Your task to perform on an android device: turn off javascript in the chrome app Image 0: 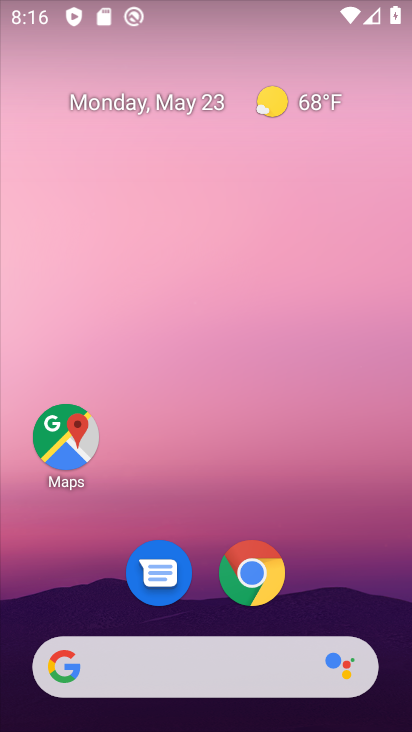
Step 0: click (253, 566)
Your task to perform on an android device: turn off javascript in the chrome app Image 1: 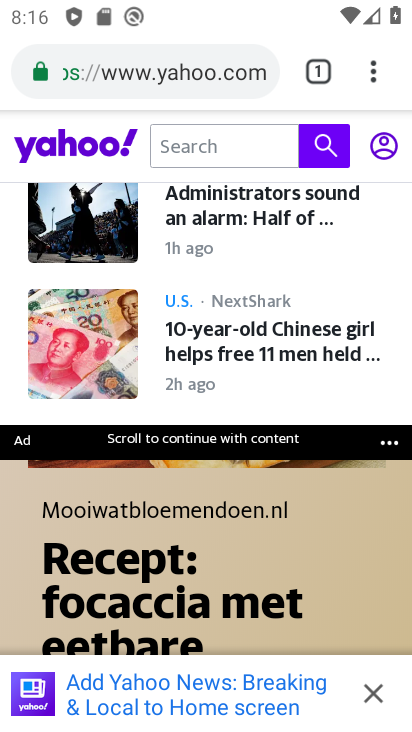
Step 1: click (373, 72)
Your task to perform on an android device: turn off javascript in the chrome app Image 2: 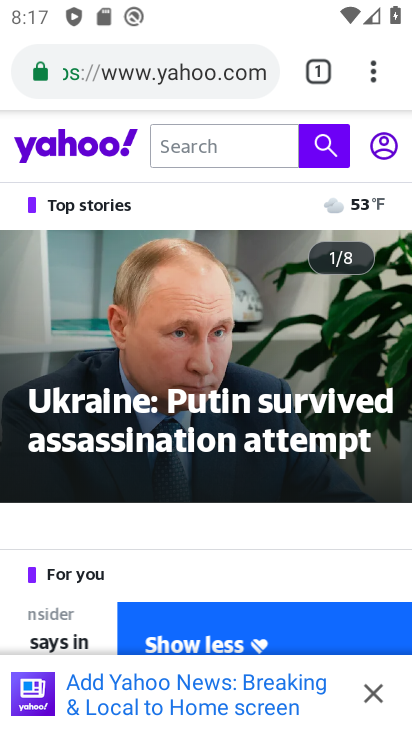
Step 2: click (370, 69)
Your task to perform on an android device: turn off javascript in the chrome app Image 3: 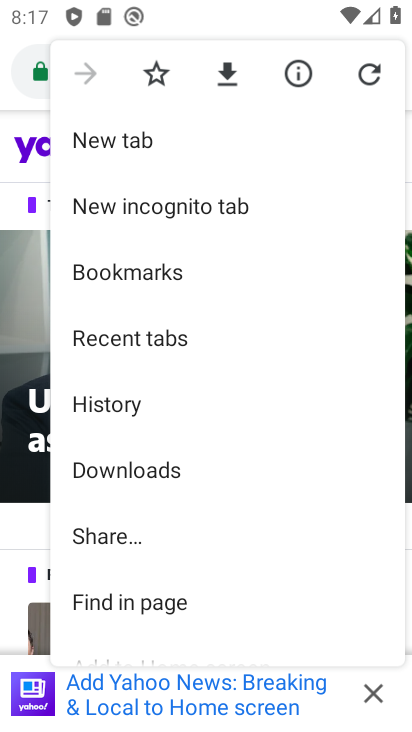
Step 3: drag from (154, 571) to (168, 151)
Your task to perform on an android device: turn off javascript in the chrome app Image 4: 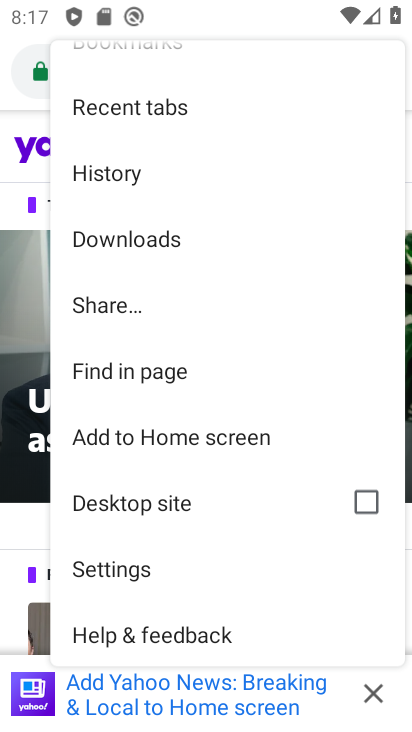
Step 4: click (147, 567)
Your task to perform on an android device: turn off javascript in the chrome app Image 5: 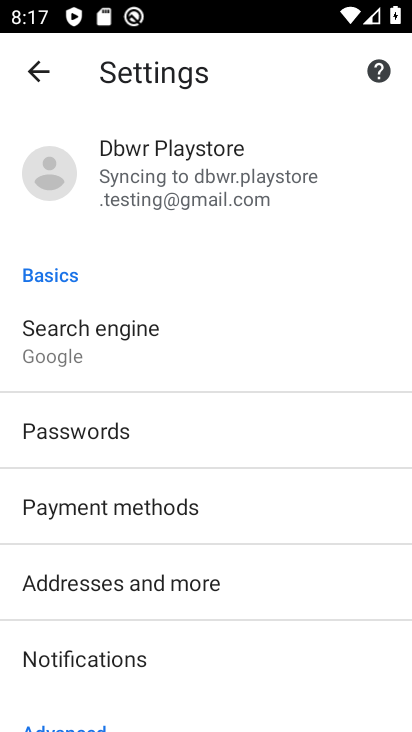
Step 5: drag from (182, 619) to (193, 72)
Your task to perform on an android device: turn off javascript in the chrome app Image 6: 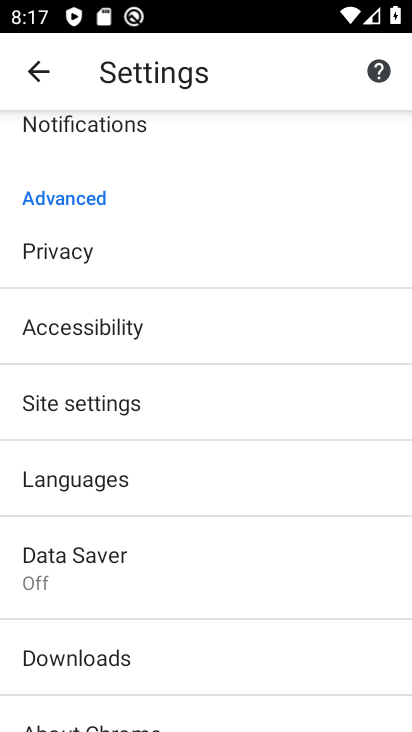
Step 6: click (131, 419)
Your task to perform on an android device: turn off javascript in the chrome app Image 7: 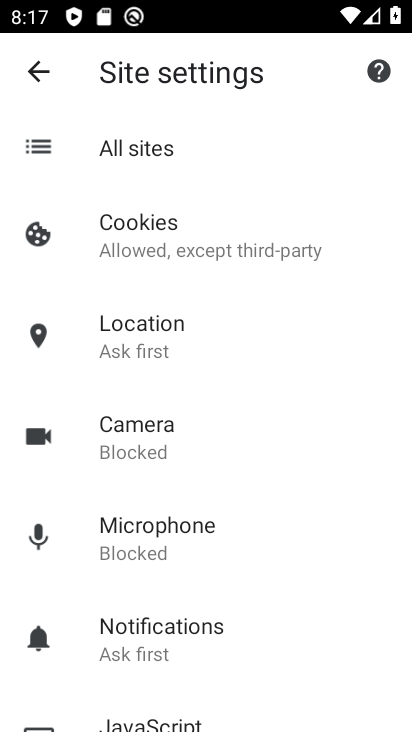
Step 7: click (213, 712)
Your task to perform on an android device: turn off javascript in the chrome app Image 8: 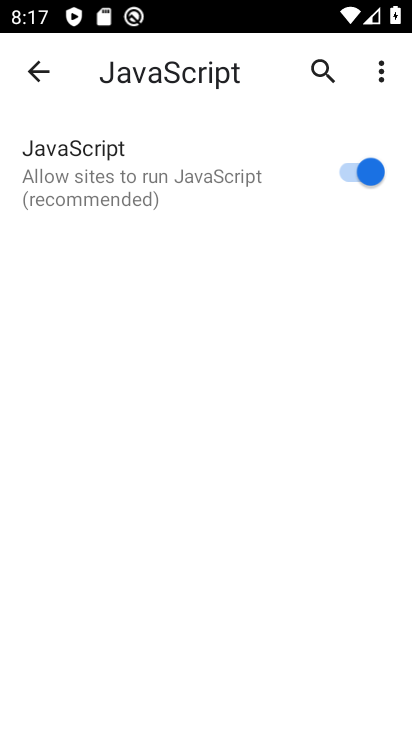
Step 8: click (355, 169)
Your task to perform on an android device: turn off javascript in the chrome app Image 9: 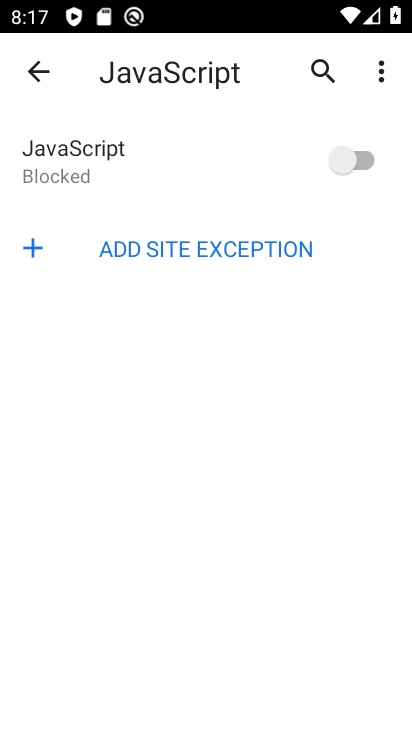
Step 9: task complete